Your task to perform on an android device: clear all cookies in the chrome app Image 0: 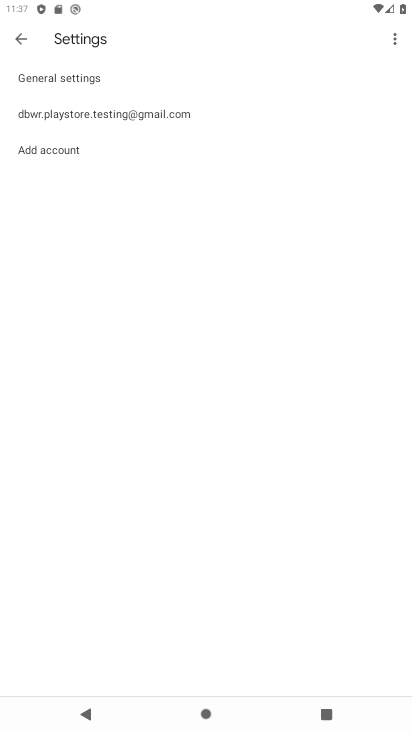
Step 0: press back button
Your task to perform on an android device: clear all cookies in the chrome app Image 1: 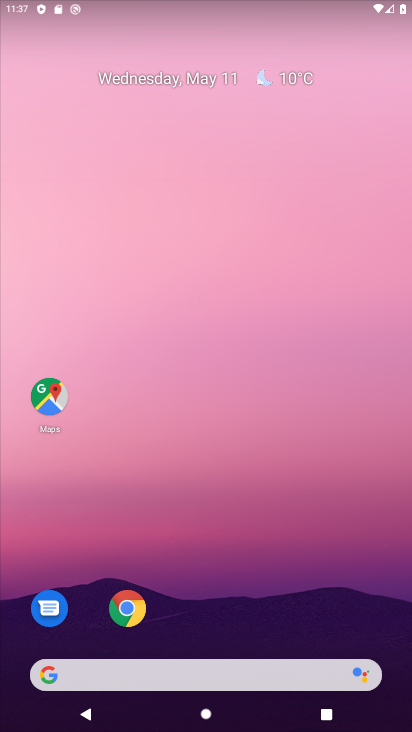
Step 1: click (128, 608)
Your task to perform on an android device: clear all cookies in the chrome app Image 2: 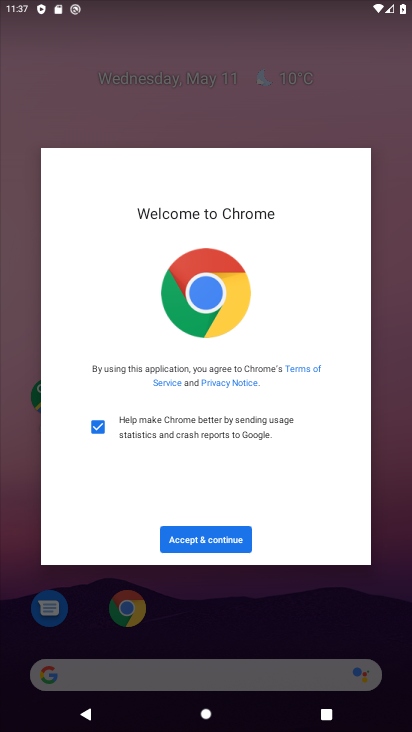
Step 2: click (196, 535)
Your task to perform on an android device: clear all cookies in the chrome app Image 3: 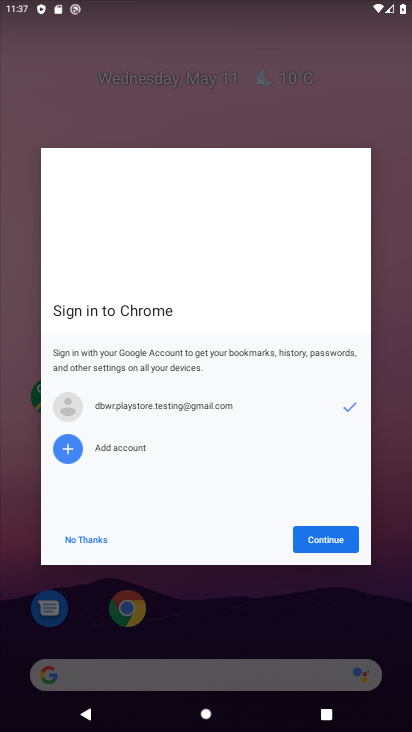
Step 3: click (344, 539)
Your task to perform on an android device: clear all cookies in the chrome app Image 4: 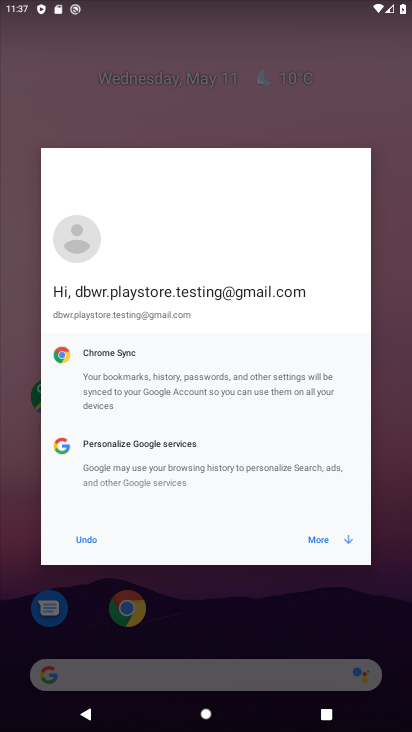
Step 4: click (319, 539)
Your task to perform on an android device: clear all cookies in the chrome app Image 5: 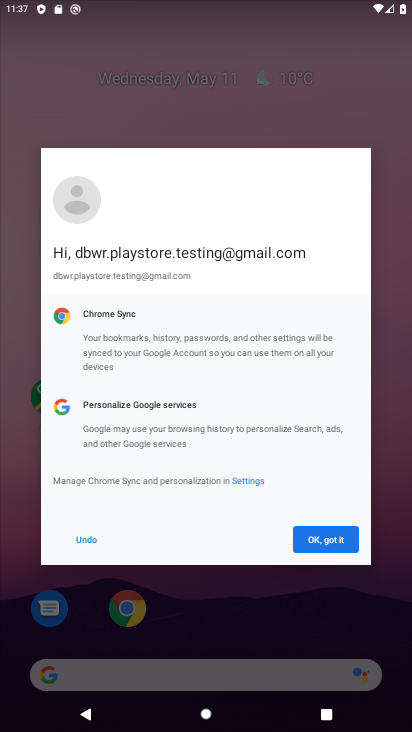
Step 5: click (319, 539)
Your task to perform on an android device: clear all cookies in the chrome app Image 6: 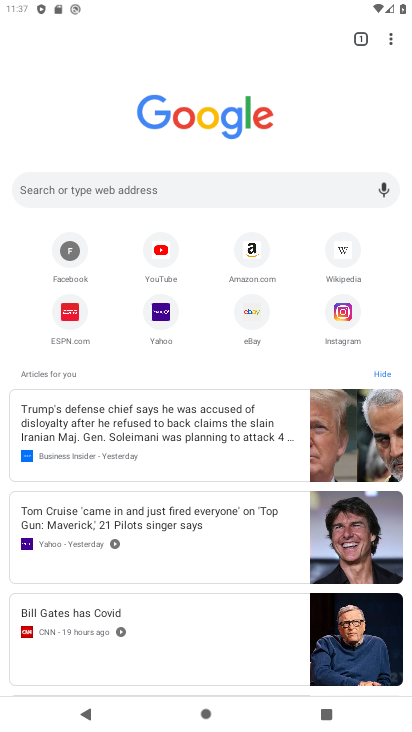
Step 6: click (390, 36)
Your task to perform on an android device: clear all cookies in the chrome app Image 7: 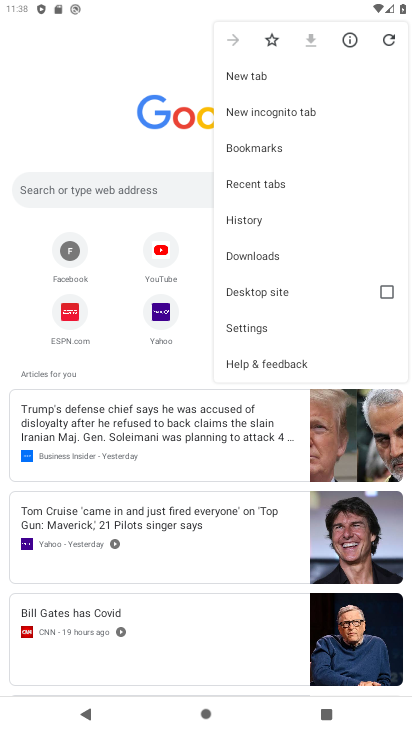
Step 7: click (245, 324)
Your task to perform on an android device: clear all cookies in the chrome app Image 8: 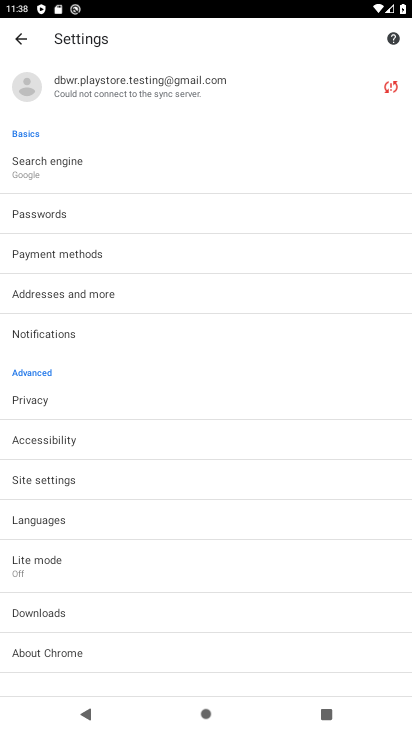
Step 8: click (30, 400)
Your task to perform on an android device: clear all cookies in the chrome app Image 9: 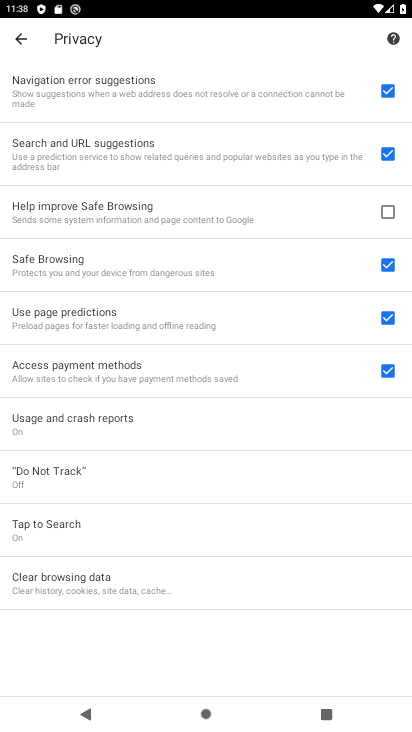
Step 9: click (44, 579)
Your task to perform on an android device: clear all cookies in the chrome app Image 10: 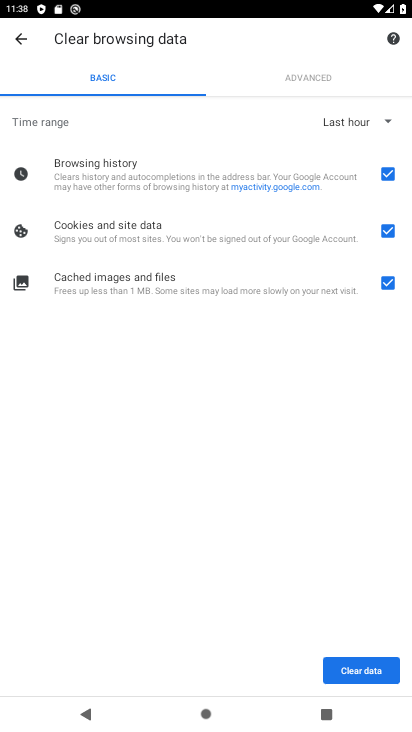
Step 10: click (381, 282)
Your task to perform on an android device: clear all cookies in the chrome app Image 11: 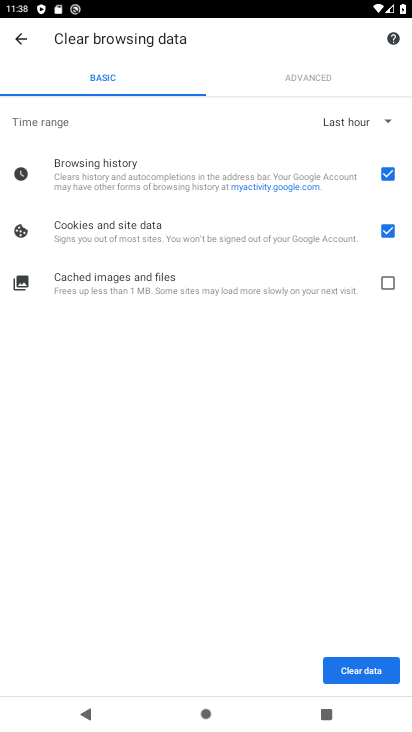
Step 11: click (388, 175)
Your task to perform on an android device: clear all cookies in the chrome app Image 12: 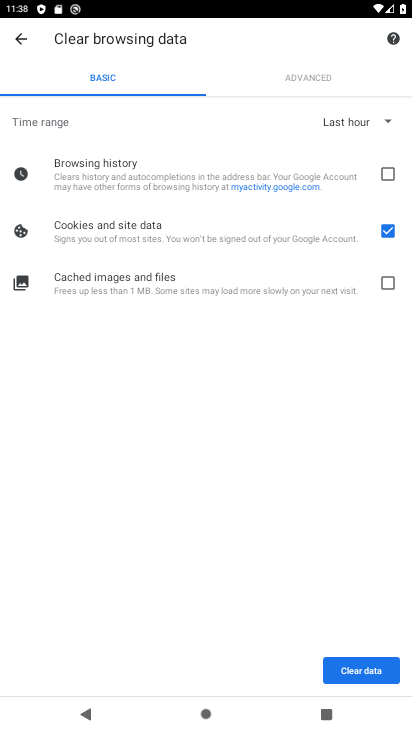
Step 12: click (387, 116)
Your task to perform on an android device: clear all cookies in the chrome app Image 13: 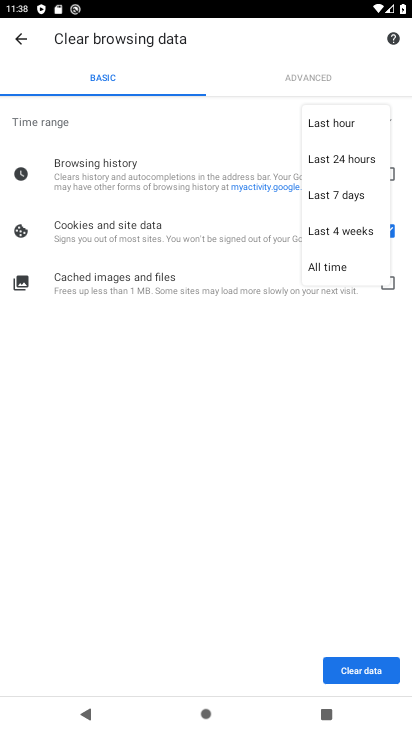
Step 13: click (329, 263)
Your task to perform on an android device: clear all cookies in the chrome app Image 14: 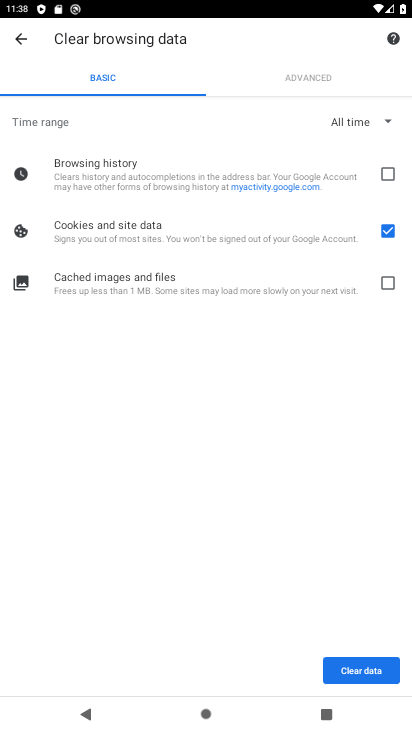
Step 14: click (344, 668)
Your task to perform on an android device: clear all cookies in the chrome app Image 15: 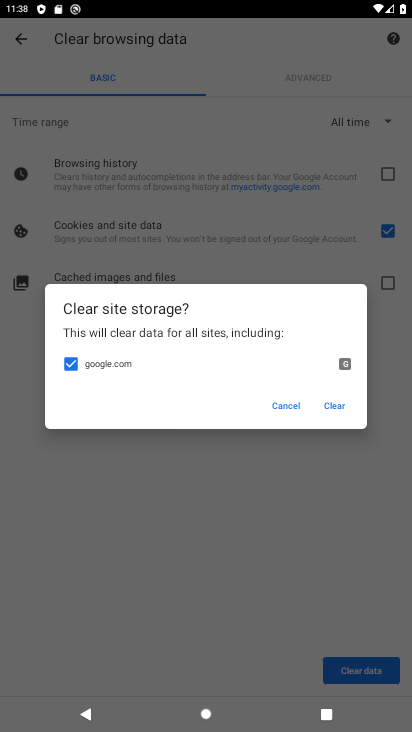
Step 15: click (335, 404)
Your task to perform on an android device: clear all cookies in the chrome app Image 16: 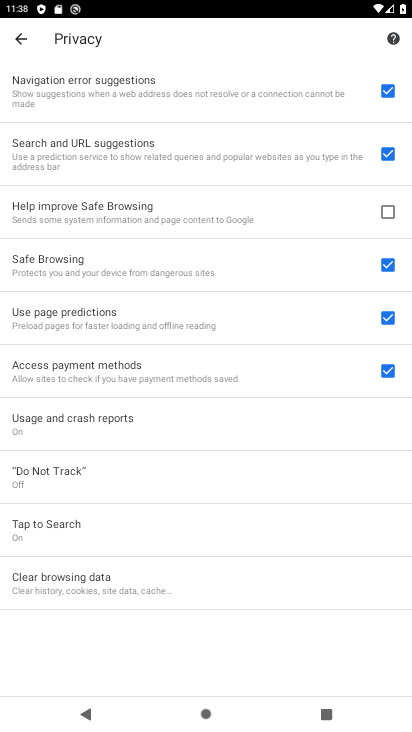
Step 16: task complete